Your task to perform on an android device: Open Google Chrome and click the shortcut for Amazon.com Image 0: 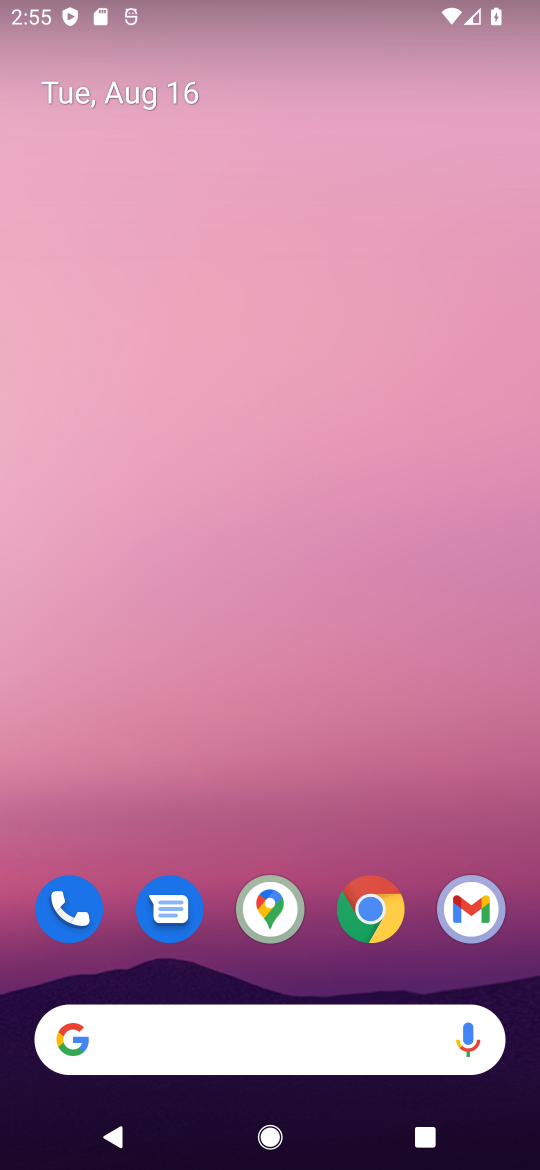
Step 0: click (374, 911)
Your task to perform on an android device: Open Google Chrome and click the shortcut for Amazon.com Image 1: 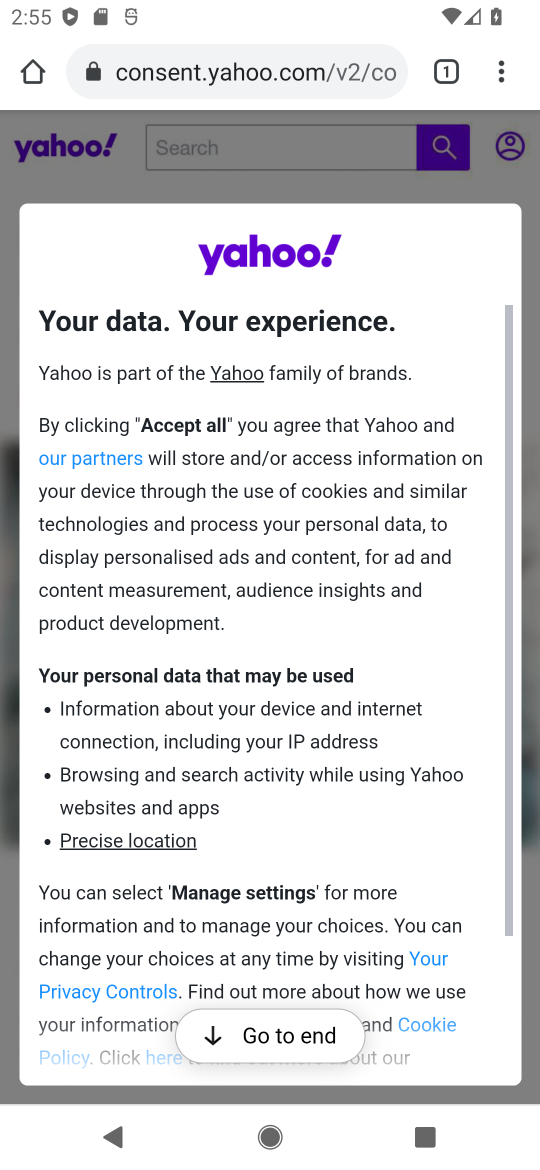
Step 1: press back button
Your task to perform on an android device: Open Google Chrome and click the shortcut for Amazon.com Image 2: 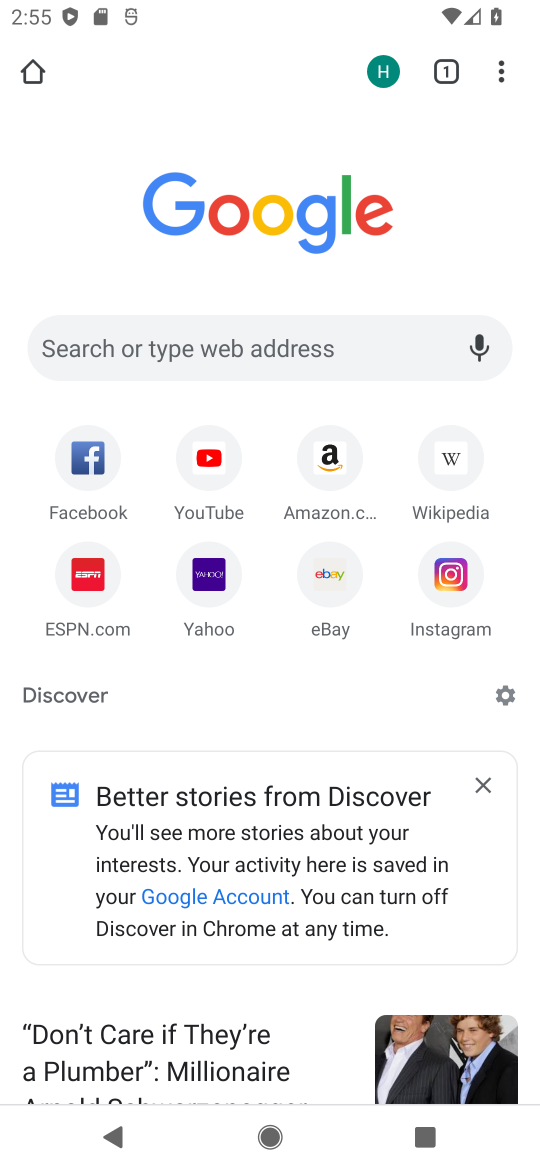
Step 2: click (339, 459)
Your task to perform on an android device: Open Google Chrome and click the shortcut for Amazon.com Image 3: 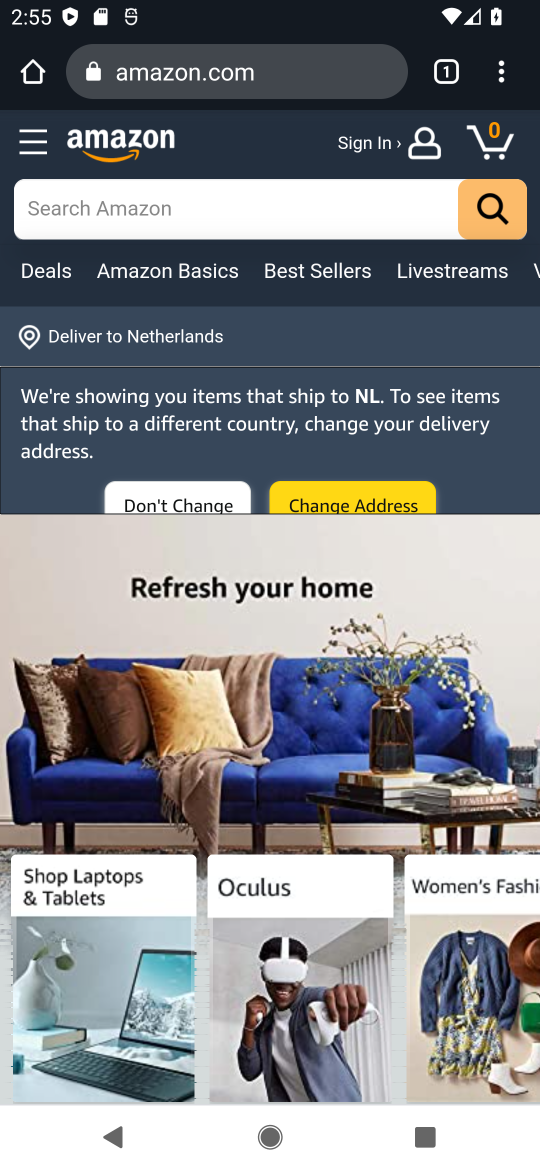
Step 3: task complete